Your task to perform on an android device: open app "WhatsApp Messenger" (install if not already installed), go to login, and select forgot password Image 0: 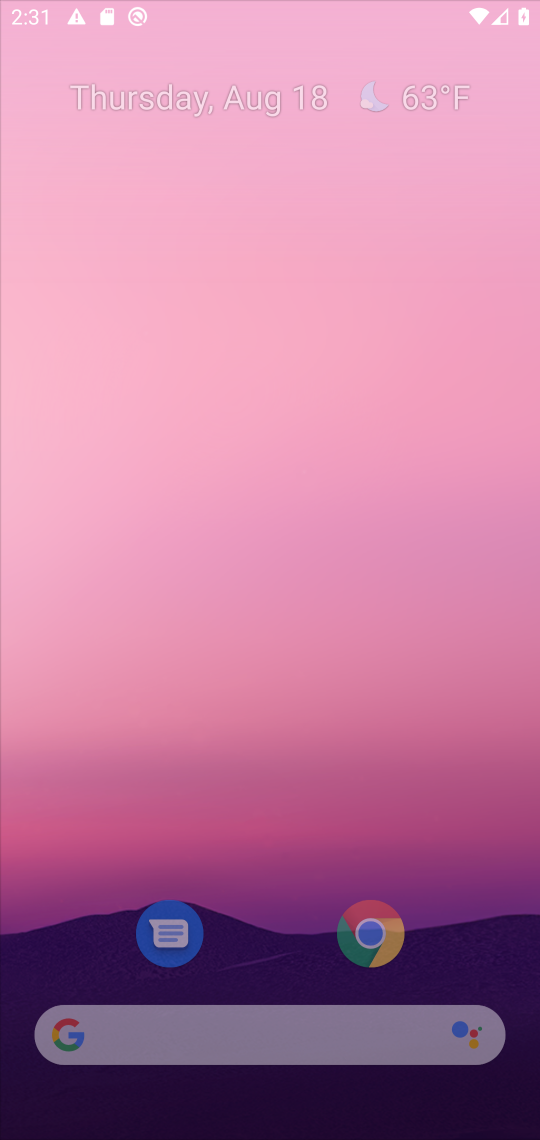
Step 0: press home button
Your task to perform on an android device: open app "WhatsApp Messenger" (install if not already installed), go to login, and select forgot password Image 1: 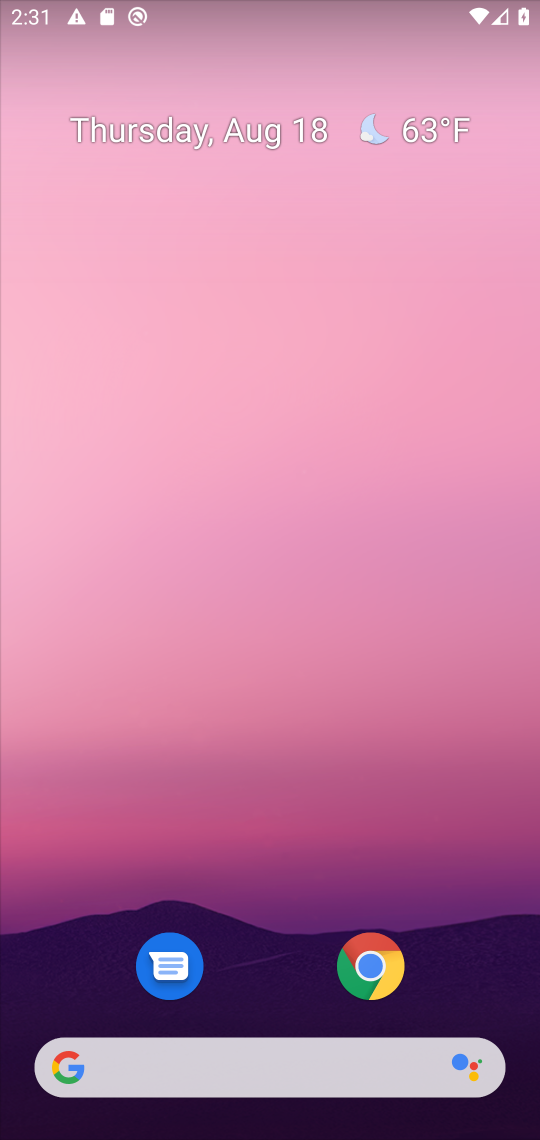
Step 1: drag from (275, 1006) to (334, 136)
Your task to perform on an android device: open app "WhatsApp Messenger" (install if not already installed), go to login, and select forgot password Image 2: 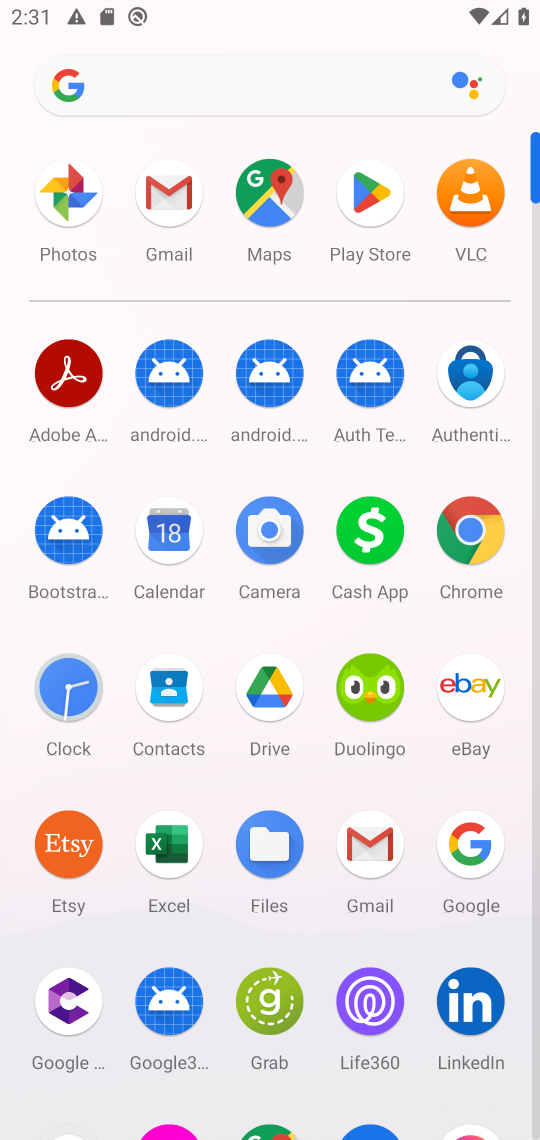
Step 2: click (368, 183)
Your task to perform on an android device: open app "WhatsApp Messenger" (install if not already installed), go to login, and select forgot password Image 3: 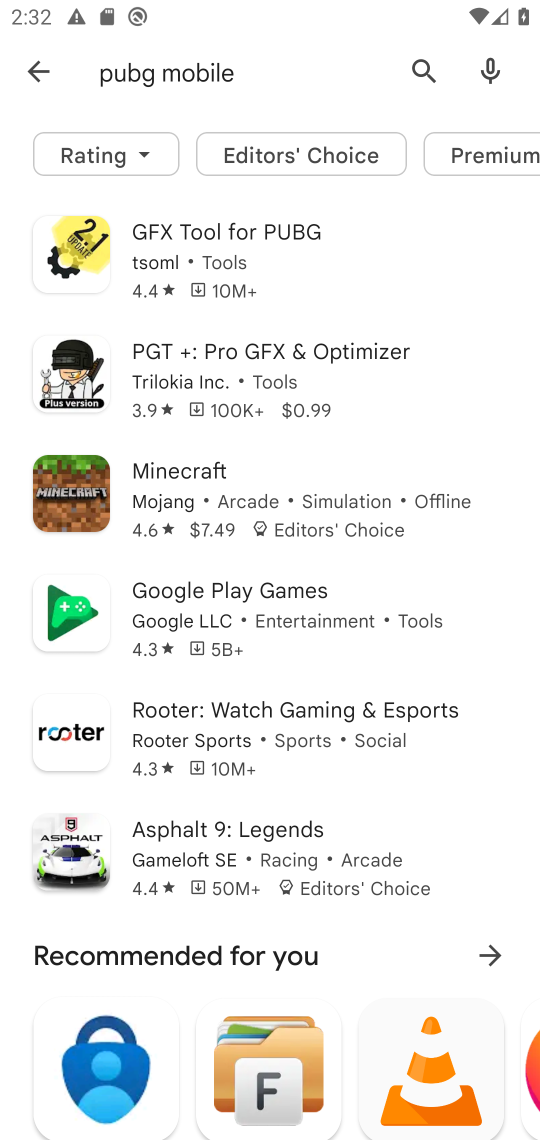
Step 3: click (412, 73)
Your task to perform on an android device: open app "WhatsApp Messenger" (install if not already installed), go to login, and select forgot password Image 4: 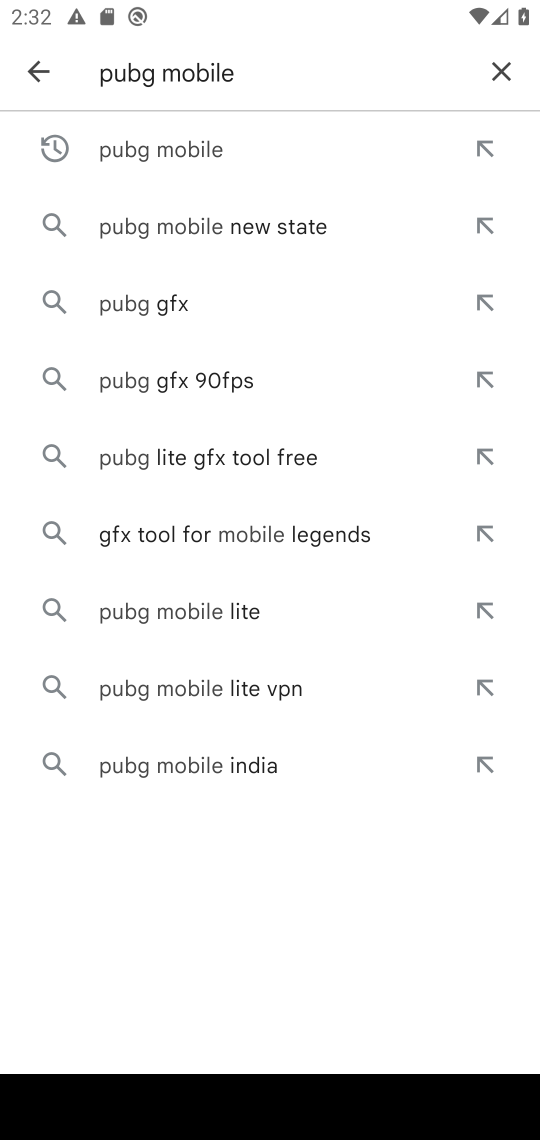
Step 4: click (506, 72)
Your task to perform on an android device: open app "WhatsApp Messenger" (install if not already installed), go to login, and select forgot password Image 5: 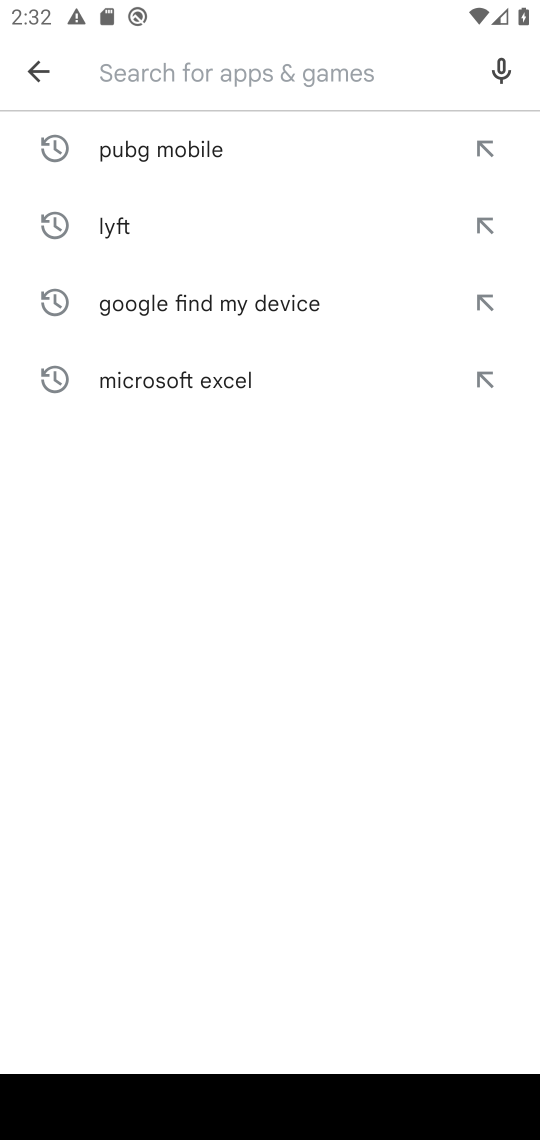
Step 5: type "WhatsApp Messenger"
Your task to perform on an android device: open app "WhatsApp Messenger" (install if not already installed), go to login, and select forgot password Image 6: 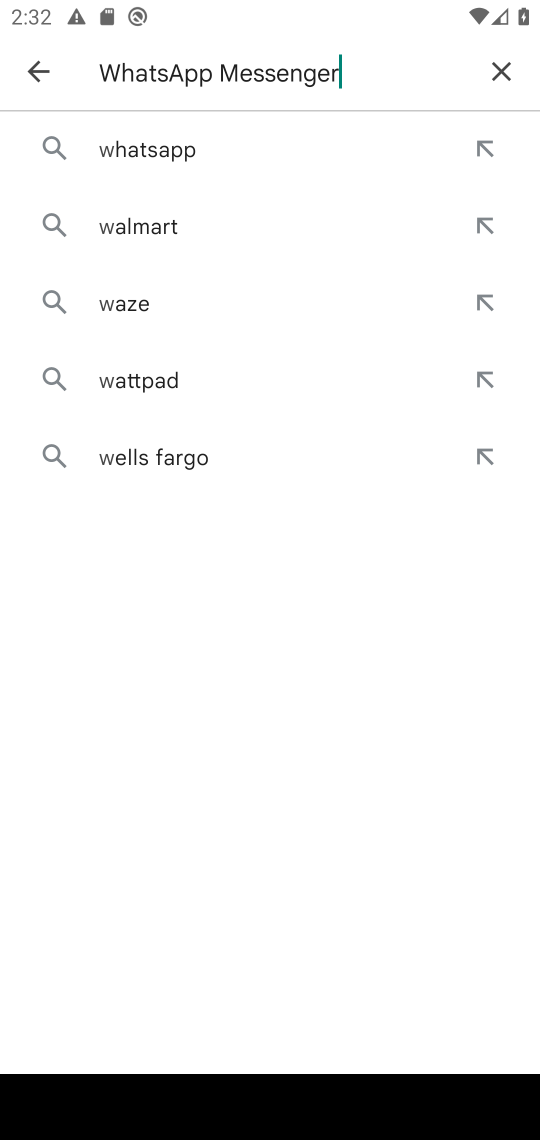
Step 6: type ""
Your task to perform on an android device: open app "WhatsApp Messenger" (install if not already installed), go to login, and select forgot password Image 7: 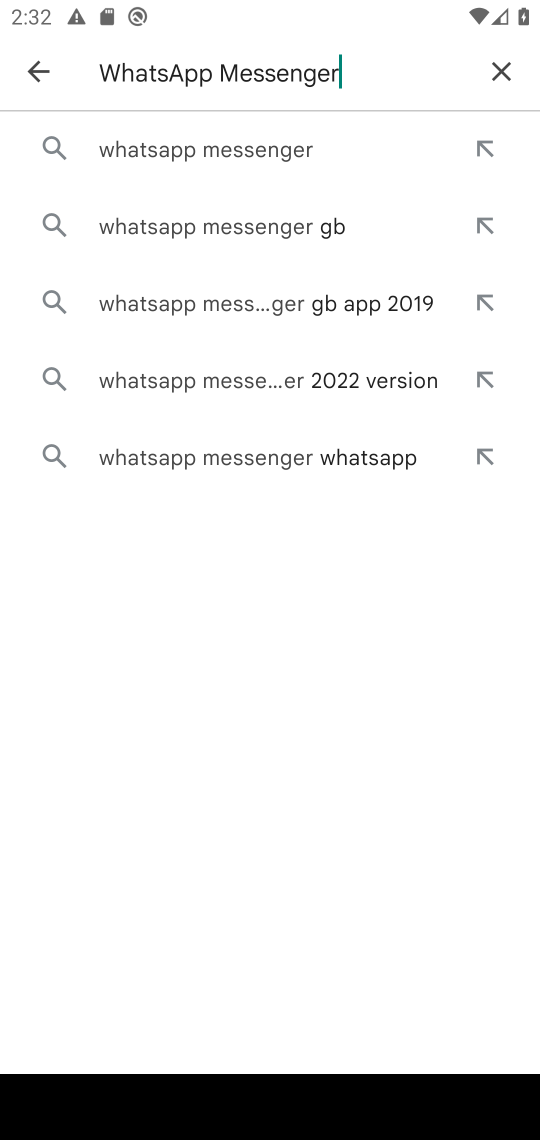
Step 7: click (170, 148)
Your task to perform on an android device: open app "WhatsApp Messenger" (install if not already installed), go to login, and select forgot password Image 8: 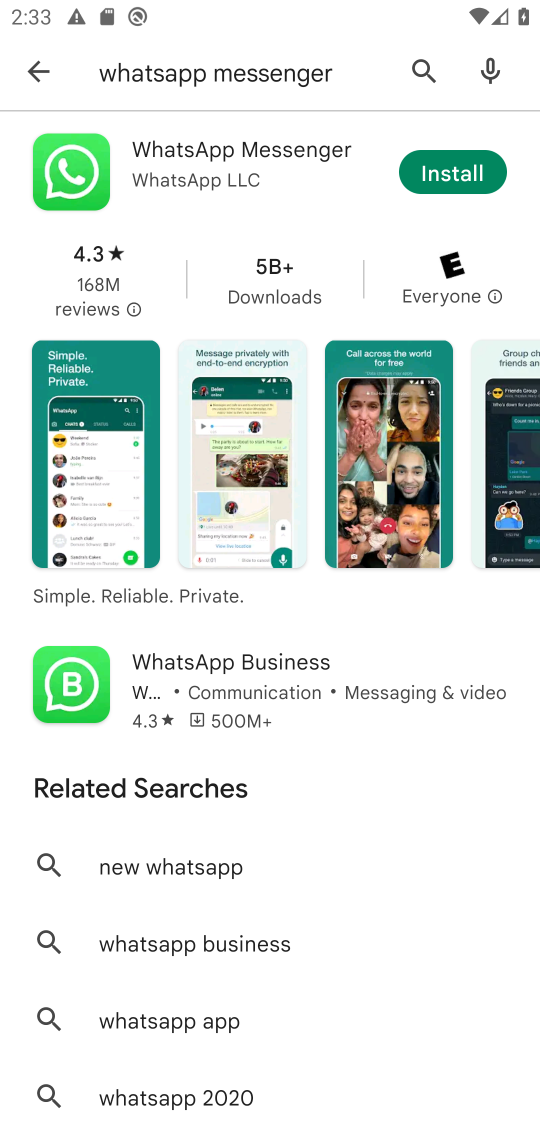
Step 8: click (425, 168)
Your task to perform on an android device: open app "WhatsApp Messenger" (install if not already installed), go to login, and select forgot password Image 9: 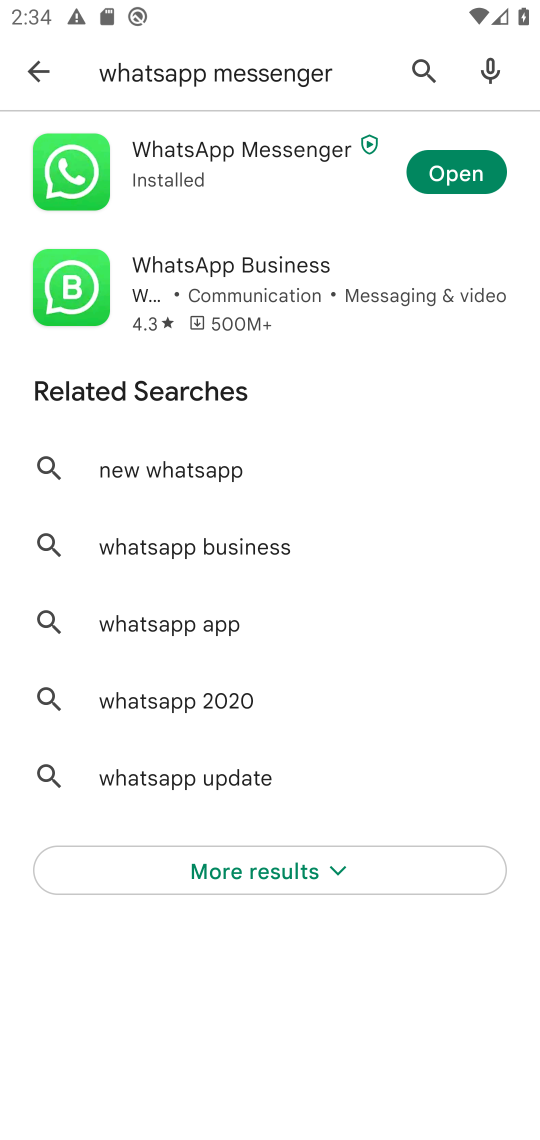
Step 9: click (432, 185)
Your task to perform on an android device: open app "WhatsApp Messenger" (install if not already installed), go to login, and select forgot password Image 10: 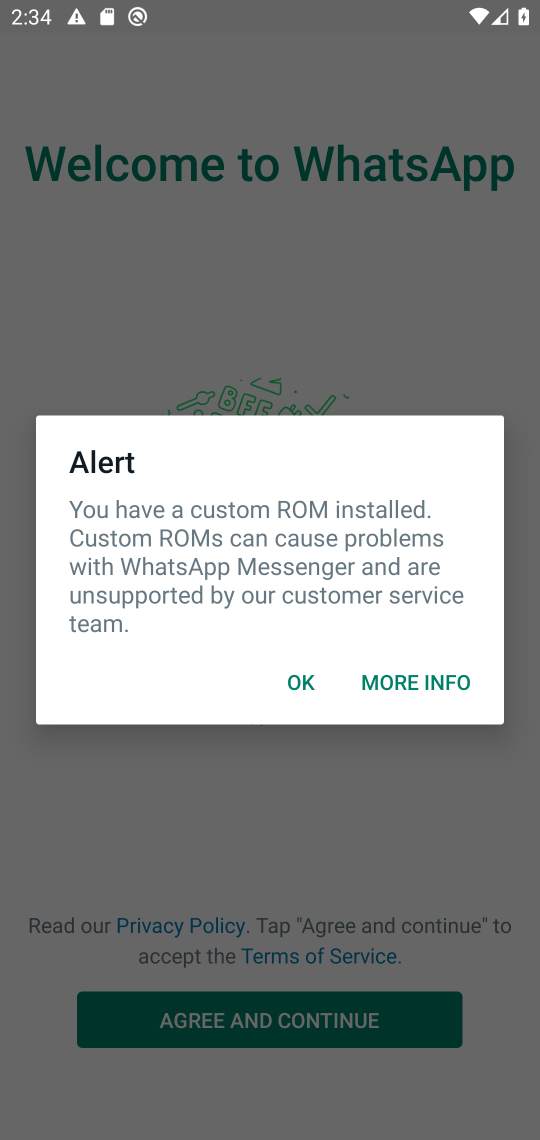
Step 10: click (290, 670)
Your task to perform on an android device: open app "WhatsApp Messenger" (install if not already installed), go to login, and select forgot password Image 11: 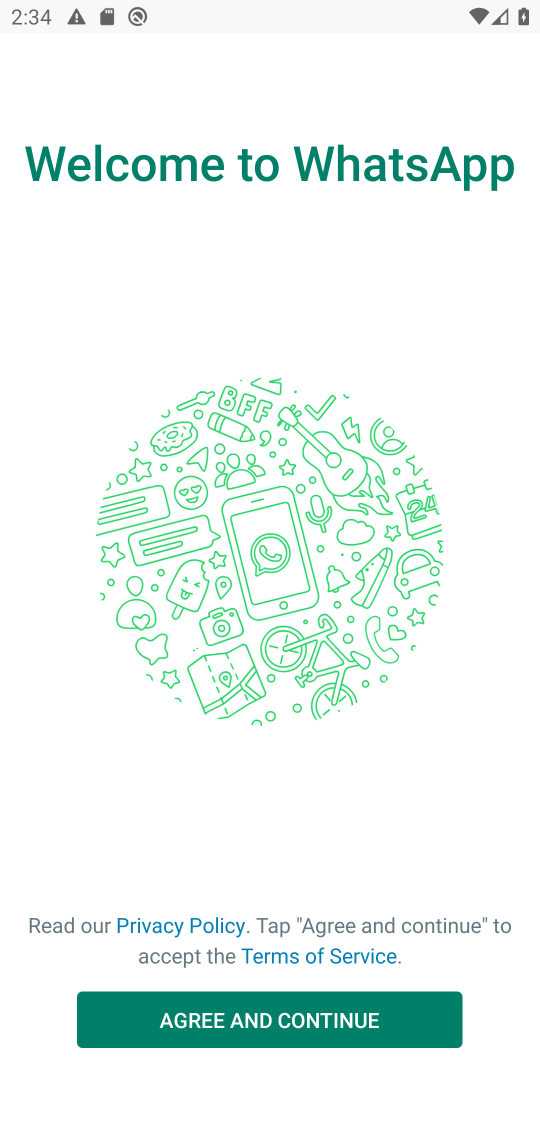
Step 11: click (300, 1011)
Your task to perform on an android device: open app "WhatsApp Messenger" (install if not already installed), go to login, and select forgot password Image 12: 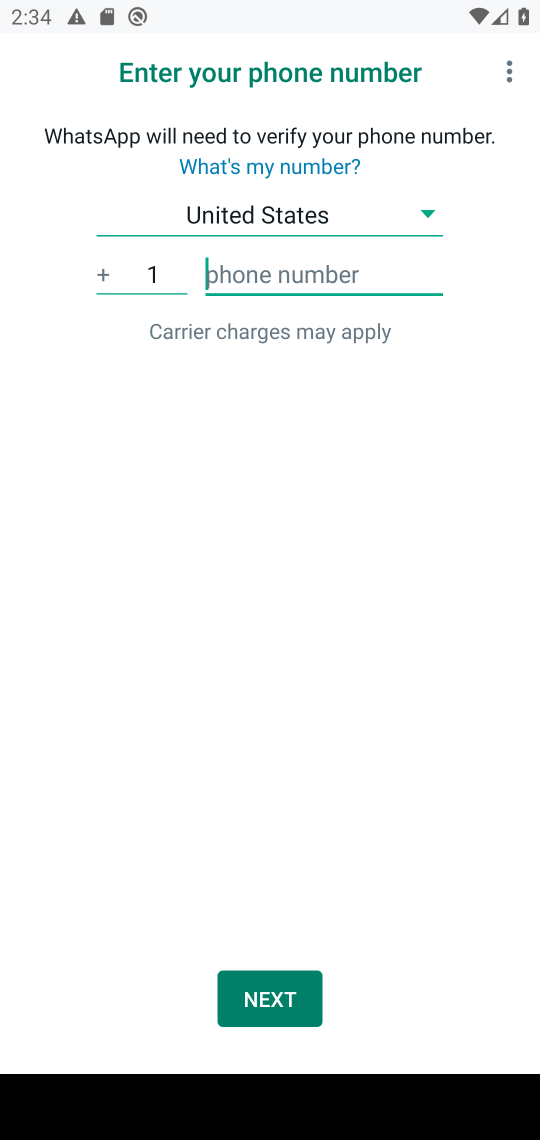
Step 12: click (294, 333)
Your task to perform on an android device: open app "WhatsApp Messenger" (install if not already installed), go to login, and select forgot password Image 13: 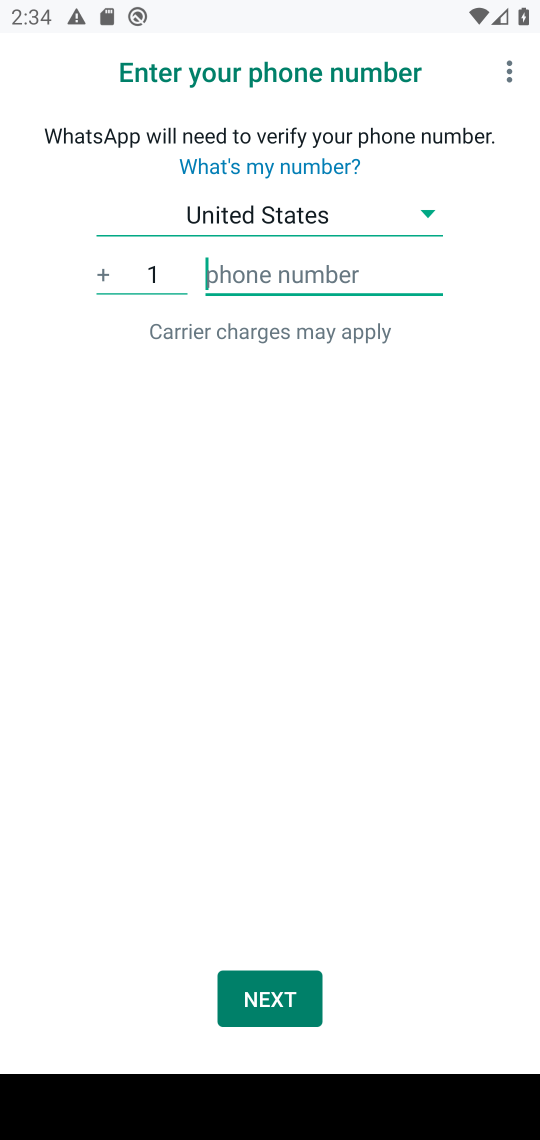
Step 13: click (503, 67)
Your task to perform on an android device: open app "WhatsApp Messenger" (install if not already installed), go to login, and select forgot password Image 14: 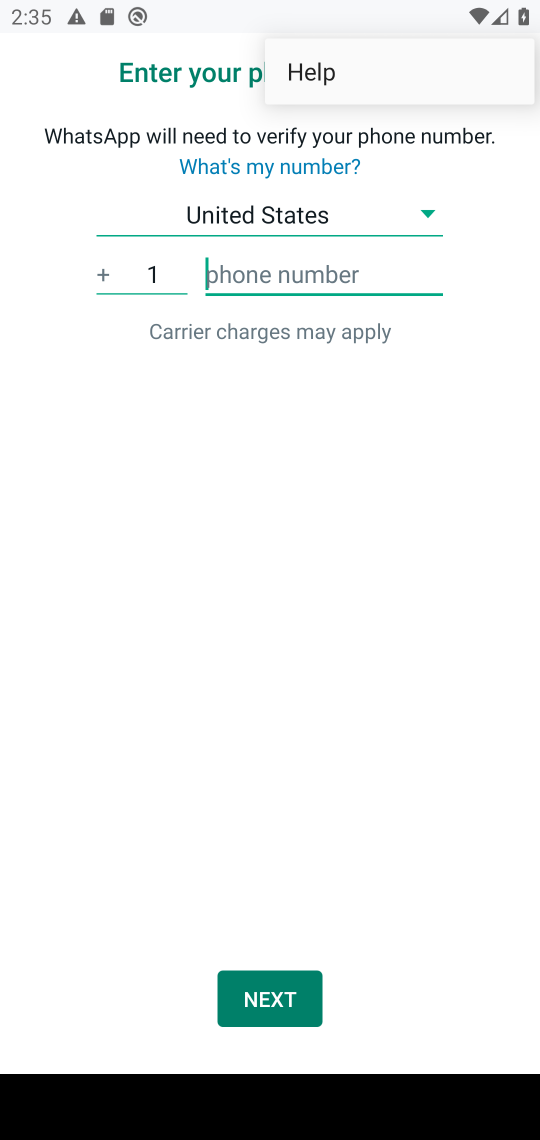
Step 14: task complete